Your task to perform on an android device: delete location history Image 0: 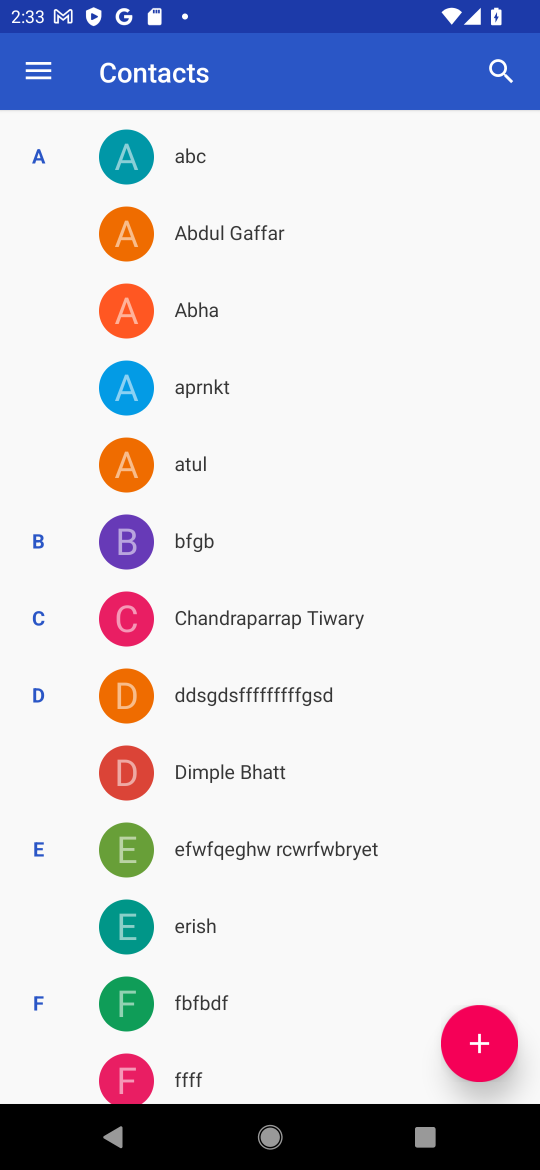
Step 0: press home button
Your task to perform on an android device: delete location history Image 1: 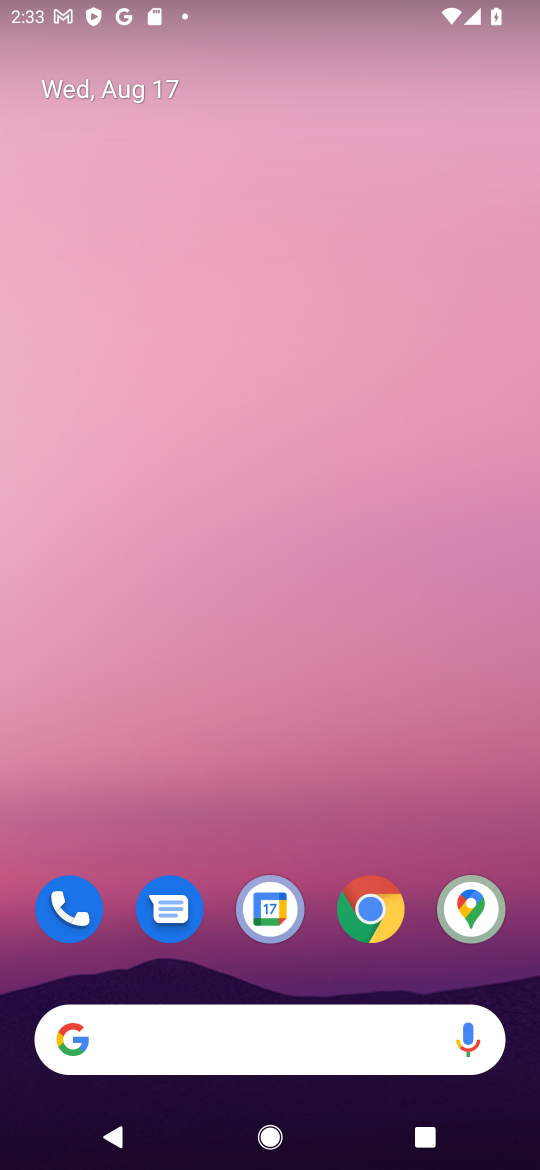
Step 1: task complete